Your task to perform on an android device: Is it going to rain tomorrow? Image 0: 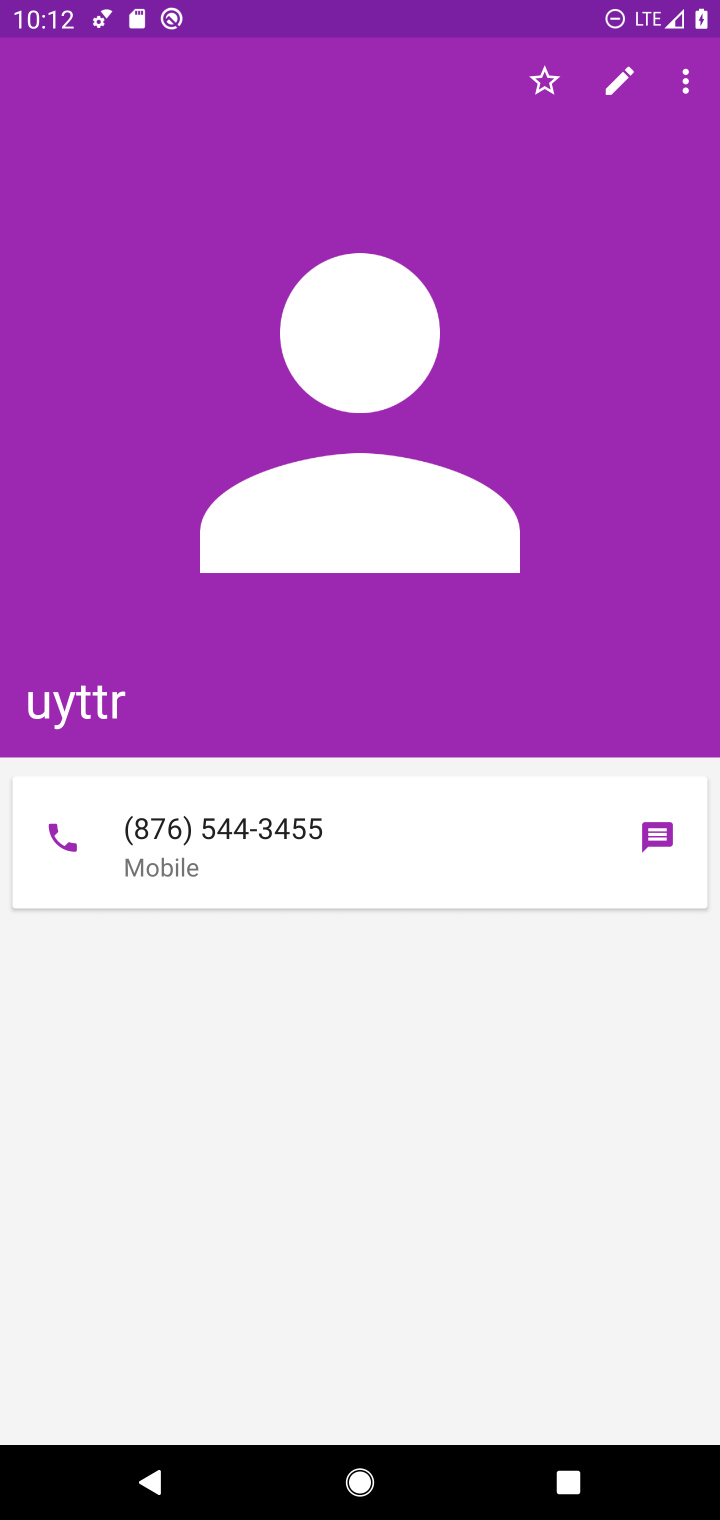
Step 0: press home button
Your task to perform on an android device: Is it going to rain tomorrow? Image 1: 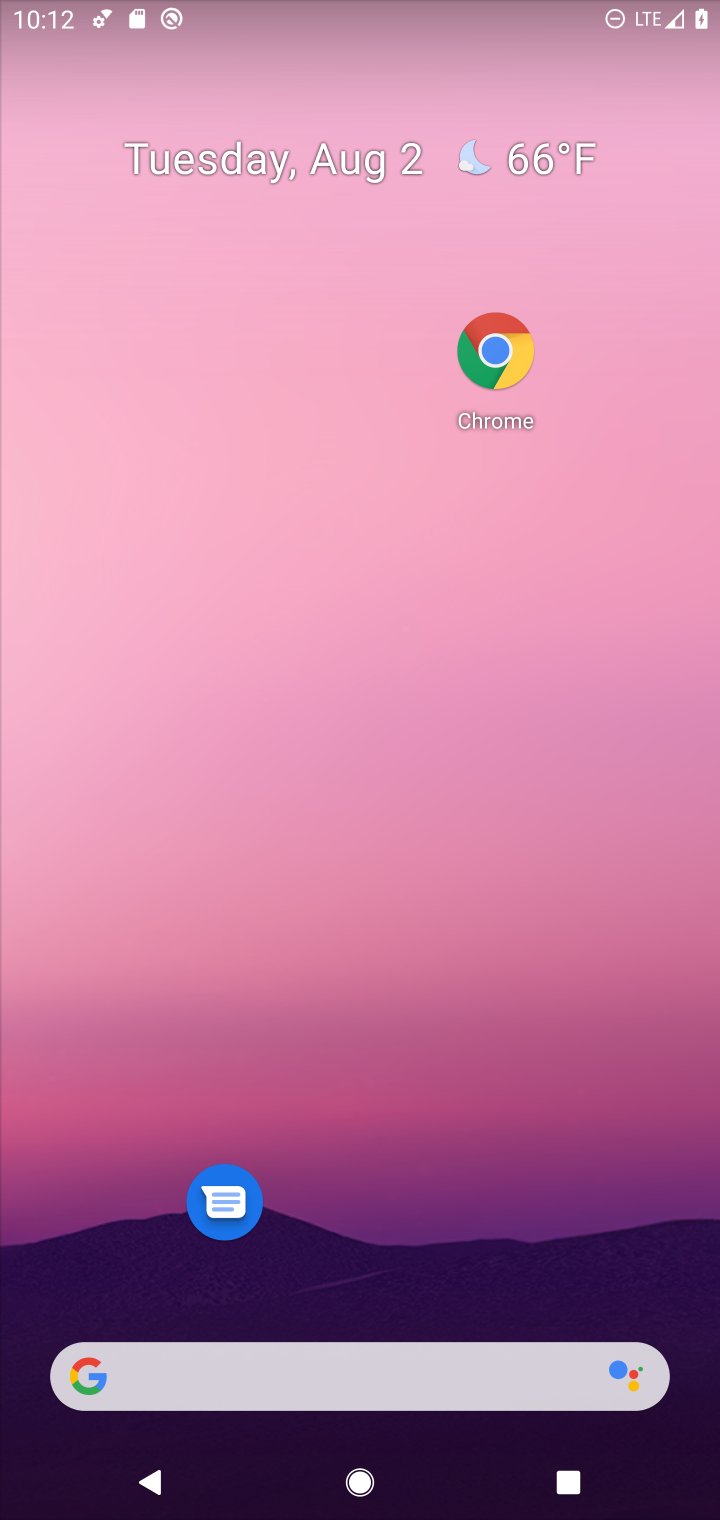
Step 1: click (544, 165)
Your task to perform on an android device: Is it going to rain tomorrow? Image 2: 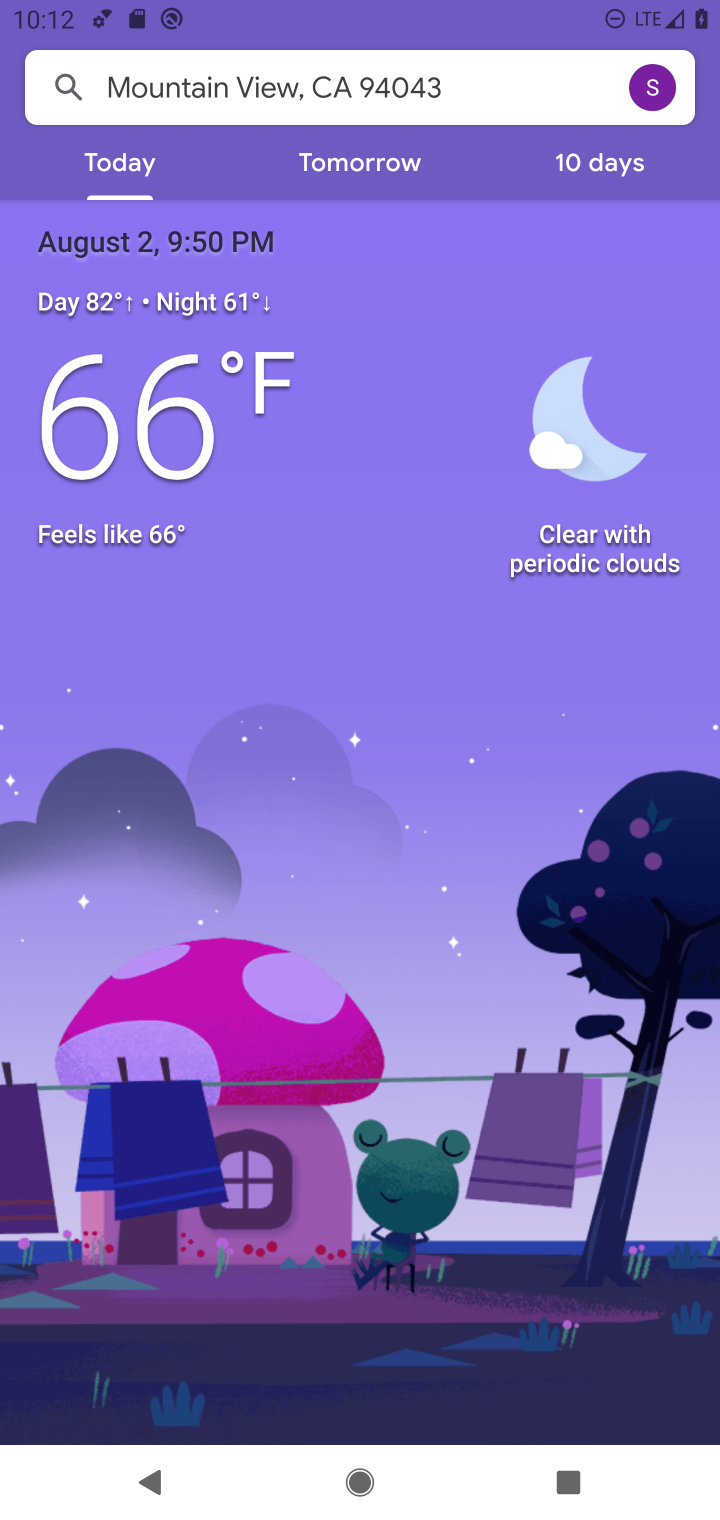
Step 2: click (352, 171)
Your task to perform on an android device: Is it going to rain tomorrow? Image 3: 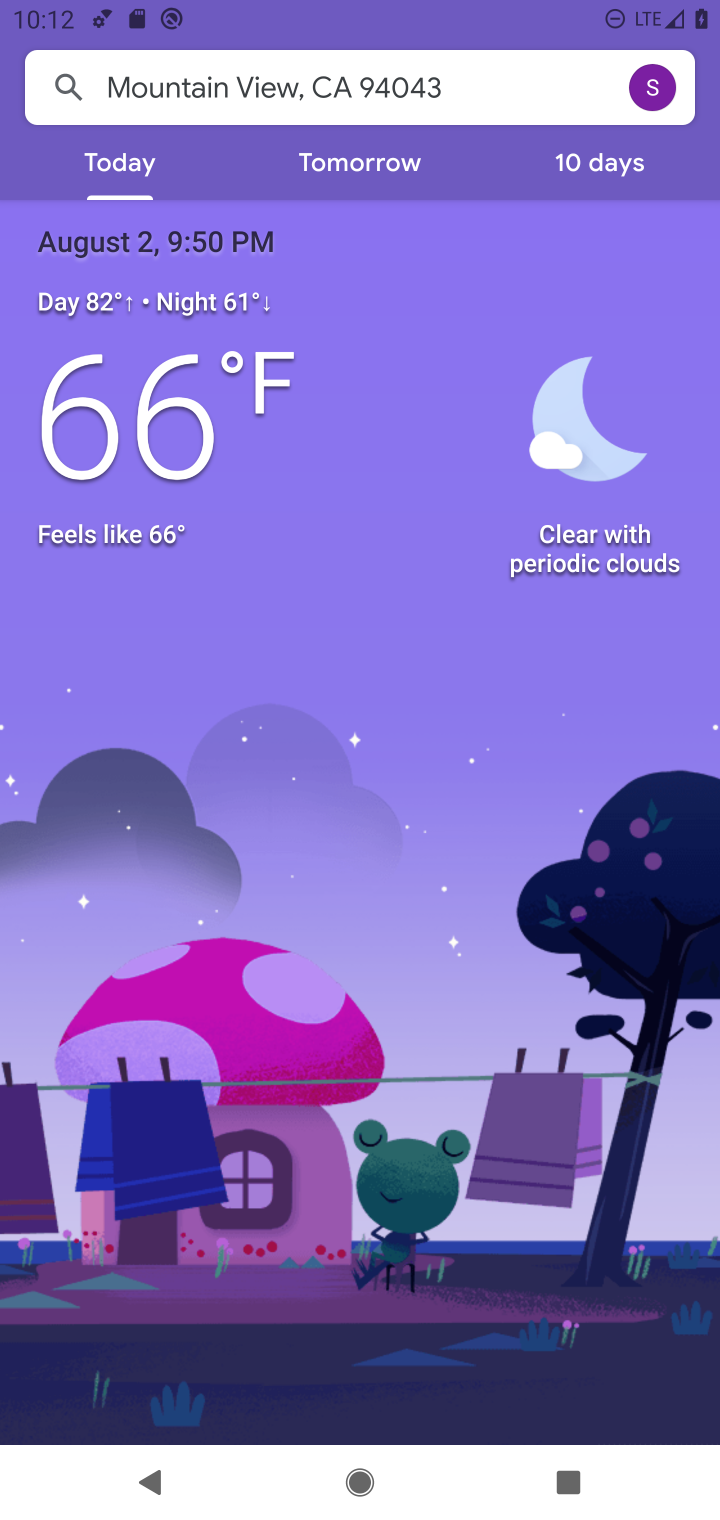
Step 3: click (356, 166)
Your task to perform on an android device: Is it going to rain tomorrow? Image 4: 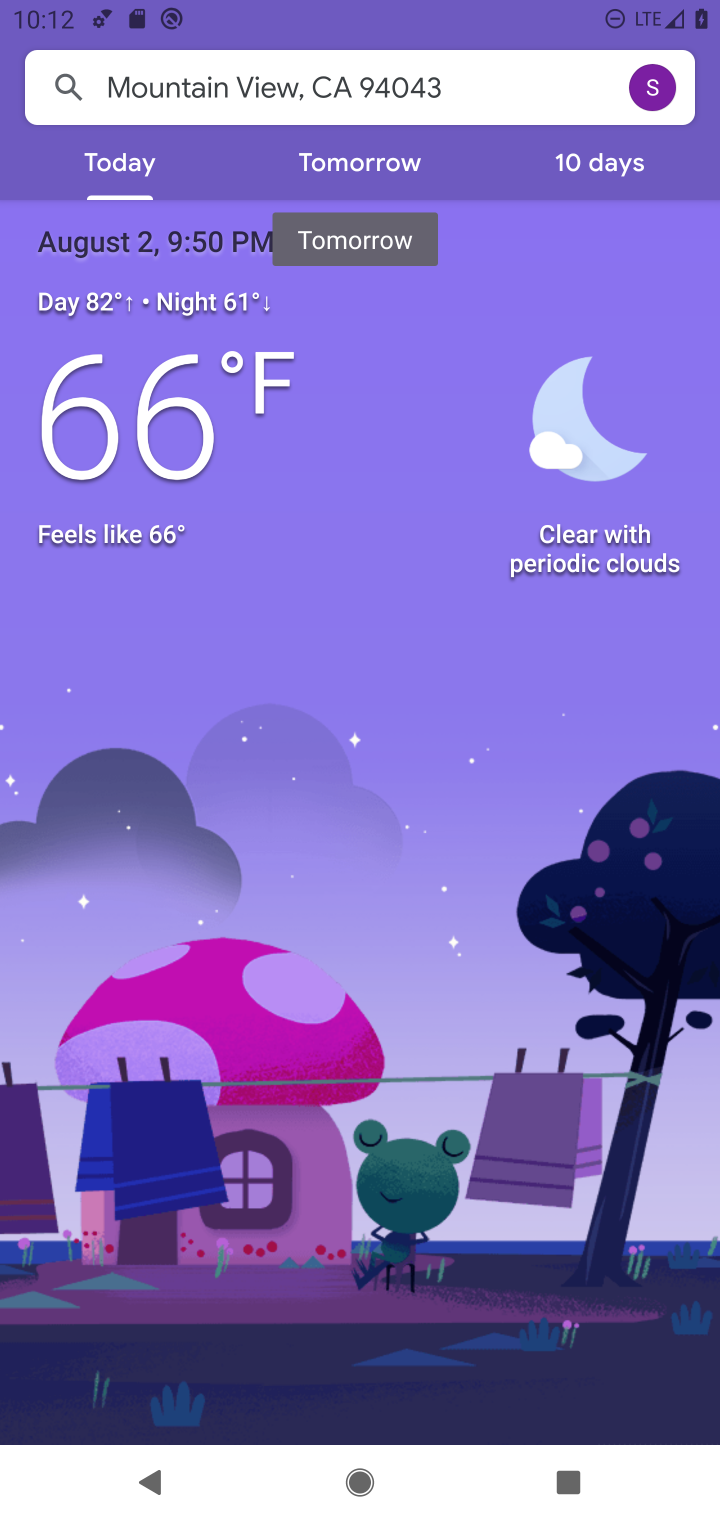
Step 4: click (356, 166)
Your task to perform on an android device: Is it going to rain tomorrow? Image 5: 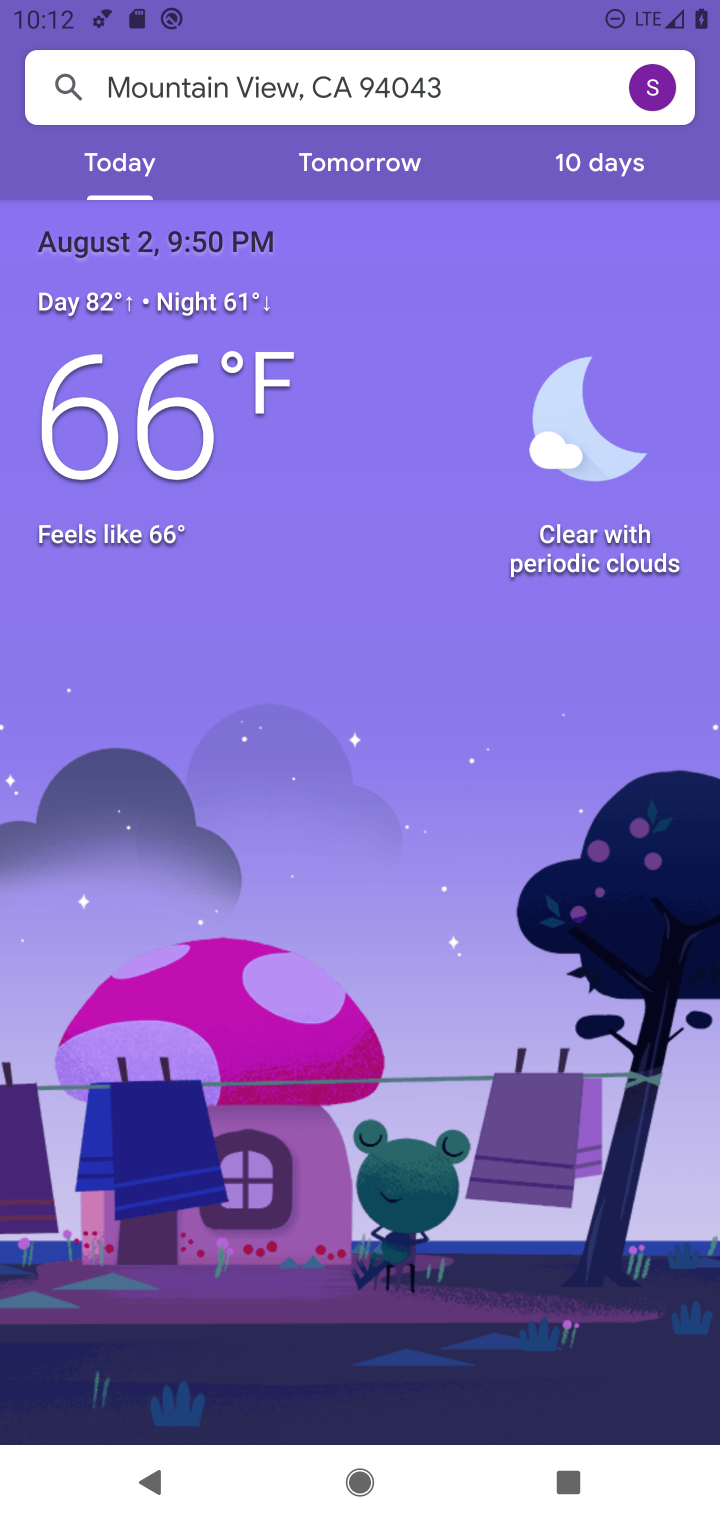
Step 5: click (339, 170)
Your task to perform on an android device: Is it going to rain tomorrow? Image 6: 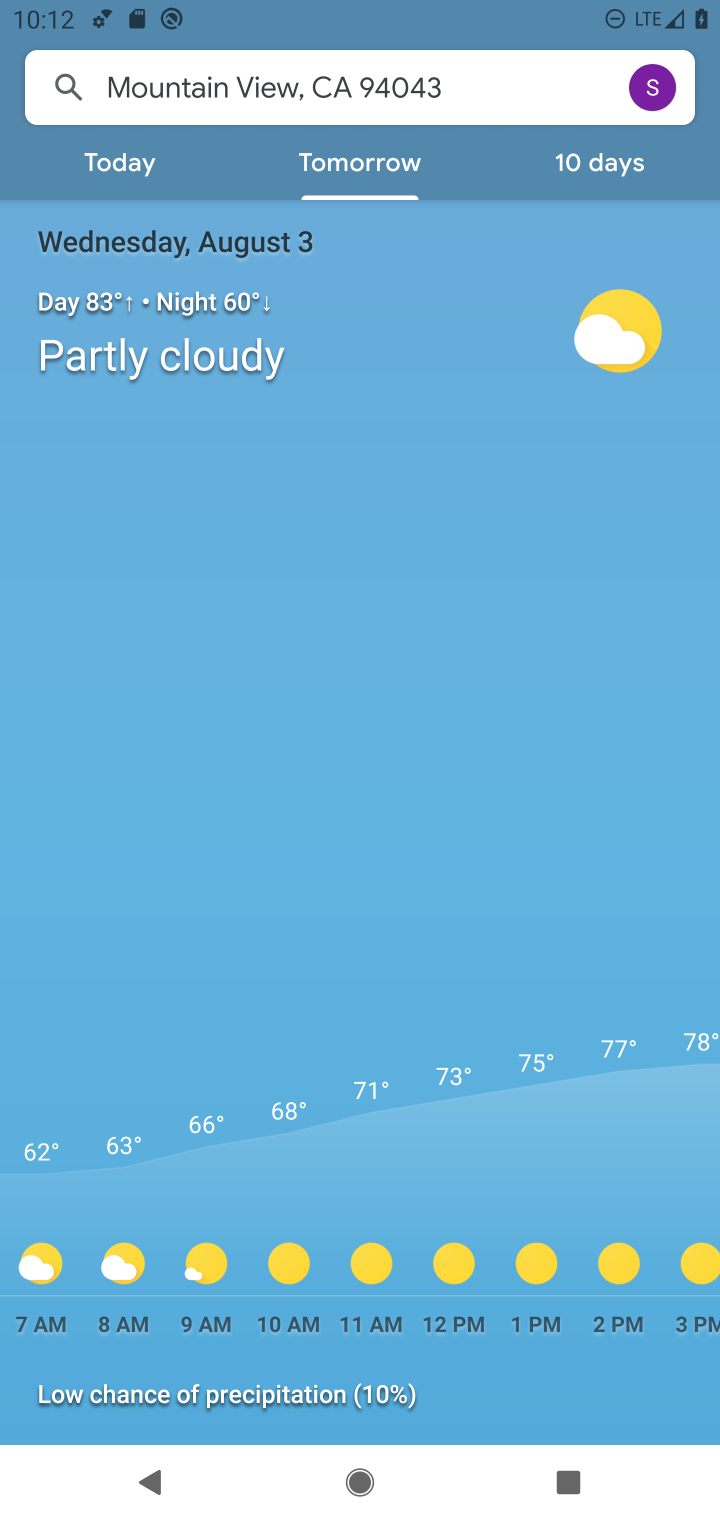
Step 6: task complete